Your task to perform on an android device: Open the map Image 0: 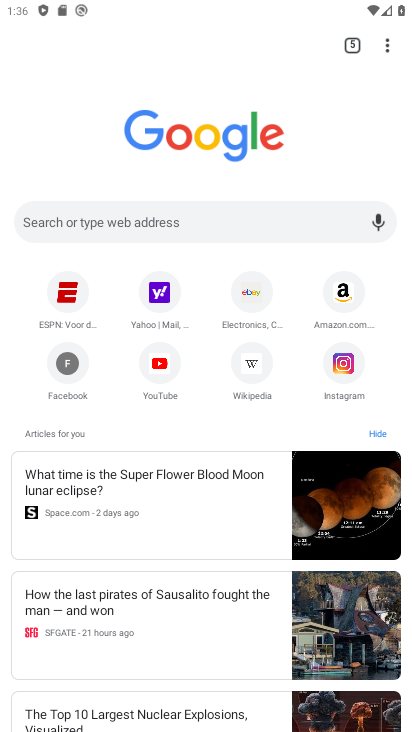
Step 0: press home button
Your task to perform on an android device: Open the map Image 1: 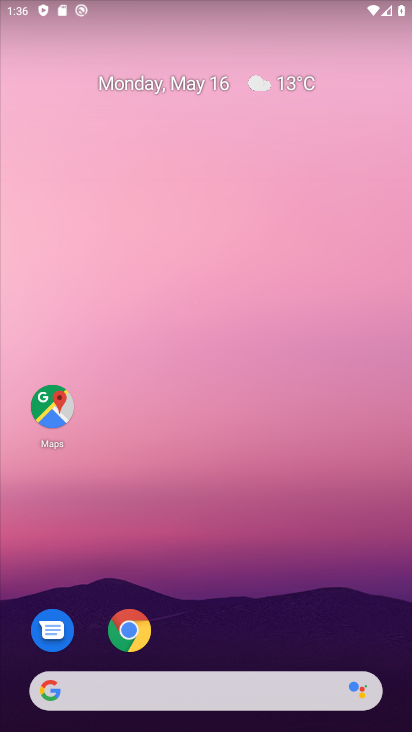
Step 1: click (50, 433)
Your task to perform on an android device: Open the map Image 2: 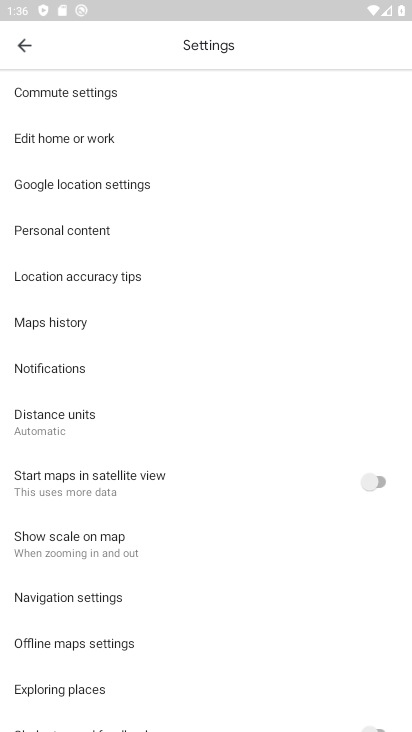
Step 2: task complete